Your task to perform on an android device: change notification settings in the gmail app Image 0: 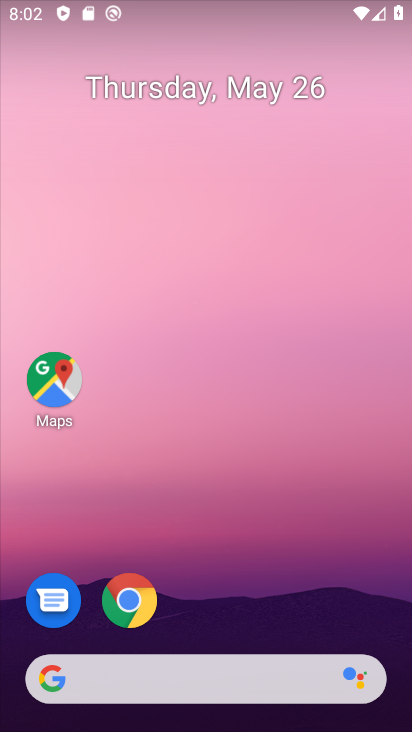
Step 0: drag from (248, 674) to (300, 47)
Your task to perform on an android device: change notification settings in the gmail app Image 1: 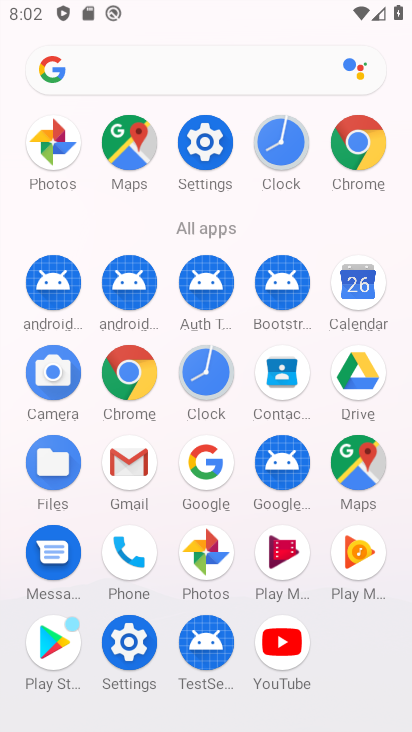
Step 1: click (124, 449)
Your task to perform on an android device: change notification settings in the gmail app Image 2: 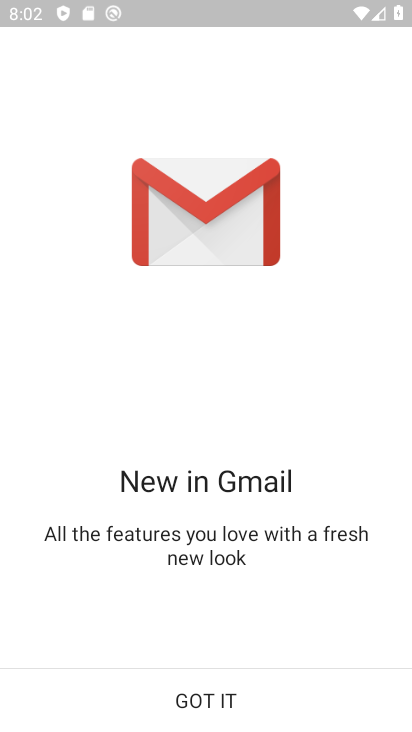
Step 2: click (172, 690)
Your task to perform on an android device: change notification settings in the gmail app Image 3: 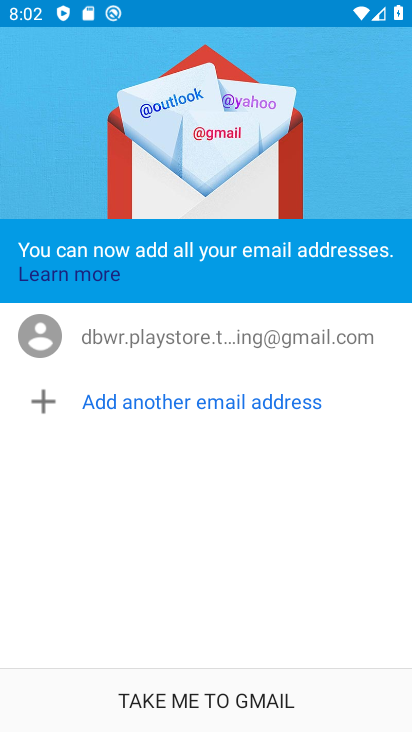
Step 3: click (172, 690)
Your task to perform on an android device: change notification settings in the gmail app Image 4: 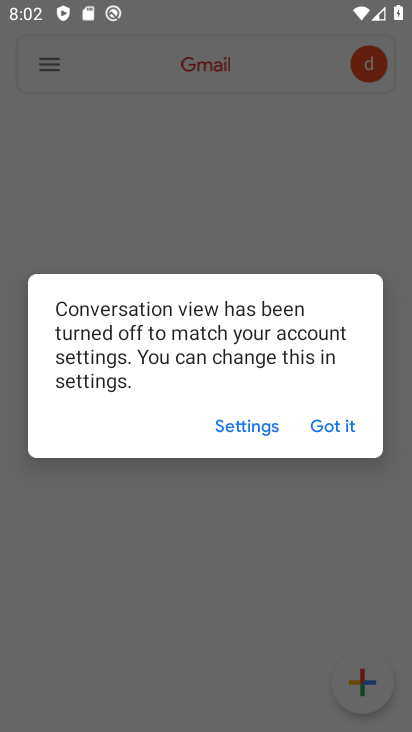
Step 4: click (325, 418)
Your task to perform on an android device: change notification settings in the gmail app Image 5: 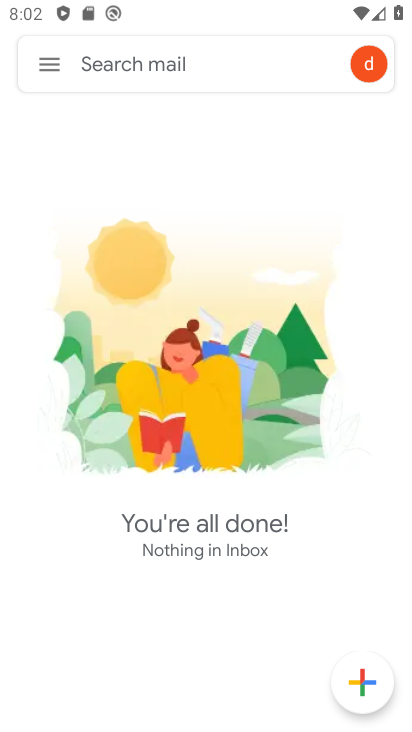
Step 5: click (50, 53)
Your task to perform on an android device: change notification settings in the gmail app Image 6: 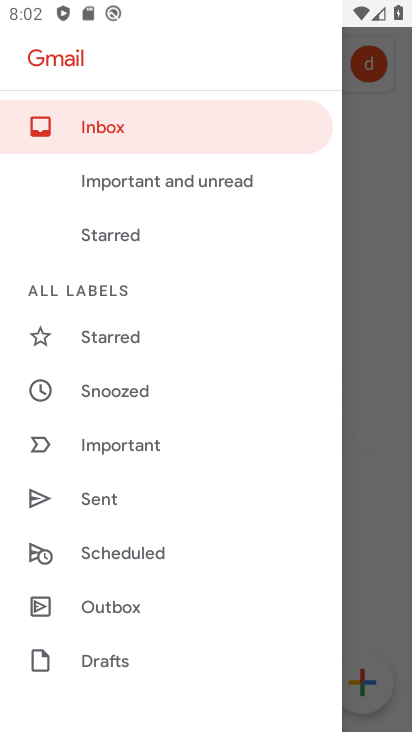
Step 6: drag from (132, 681) to (215, 162)
Your task to perform on an android device: change notification settings in the gmail app Image 7: 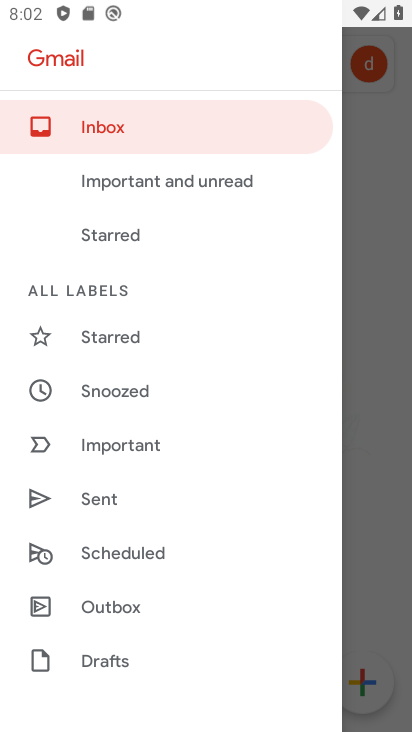
Step 7: drag from (172, 648) to (195, 187)
Your task to perform on an android device: change notification settings in the gmail app Image 8: 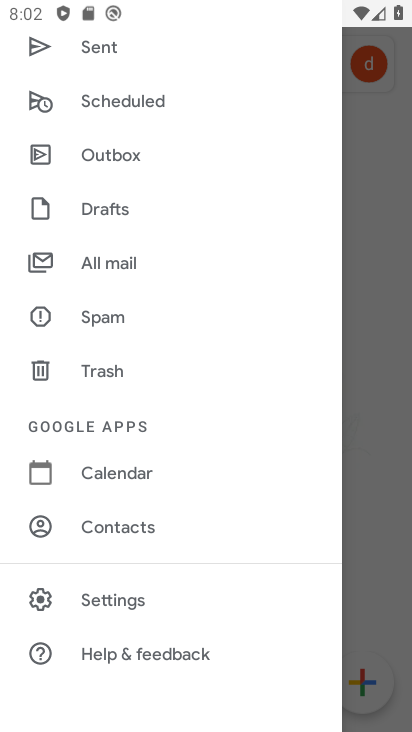
Step 8: click (144, 595)
Your task to perform on an android device: change notification settings in the gmail app Image 9: 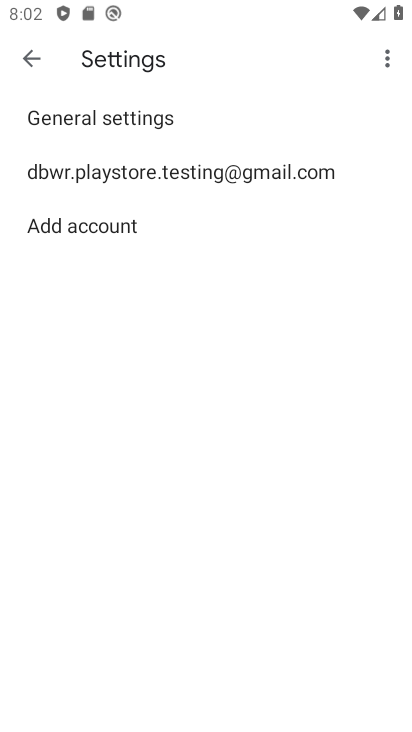
Step 9: click (279, 166)
Your task to perform on an android device: change notification settings in the gmail app Image 10: 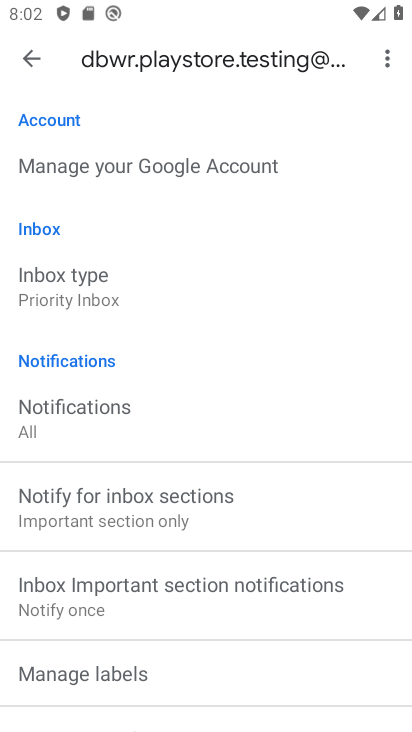
Step 10: click (68, 438)
Your task to perform on an android device: change notification settings in the gmail app Image 11: 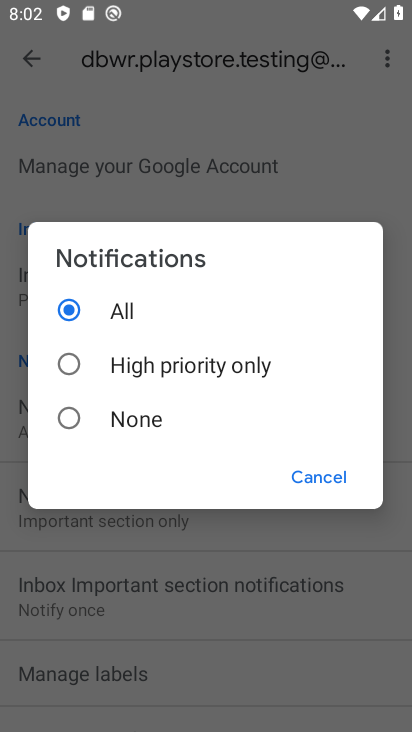
Step 11: click (160, 363)
Your task to perform on an android device: change notification settings in the gmail app Image 12: 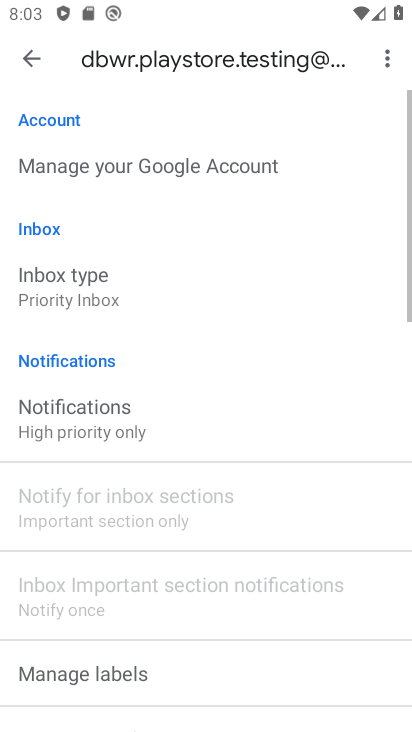
Step 12: task complete